Your task to perform on an android device: open app "eBay: The shopping marketplace" (install if not already installed) Image 0: 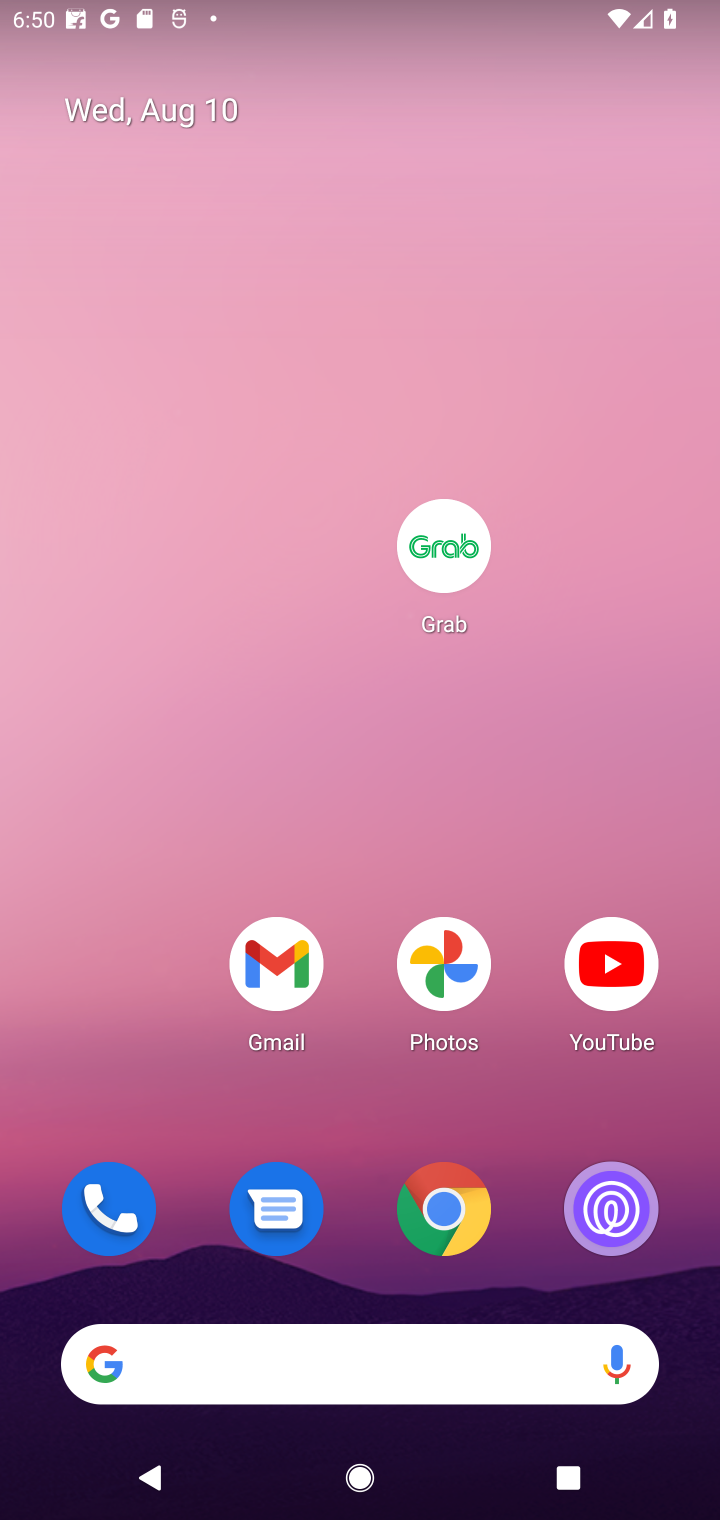
Step 0: drag from (508, 1278) to (477, 18)
Your task to perform on an android device: open app "eBay: The shopping marketplace" (install if not already installed) Image 1: 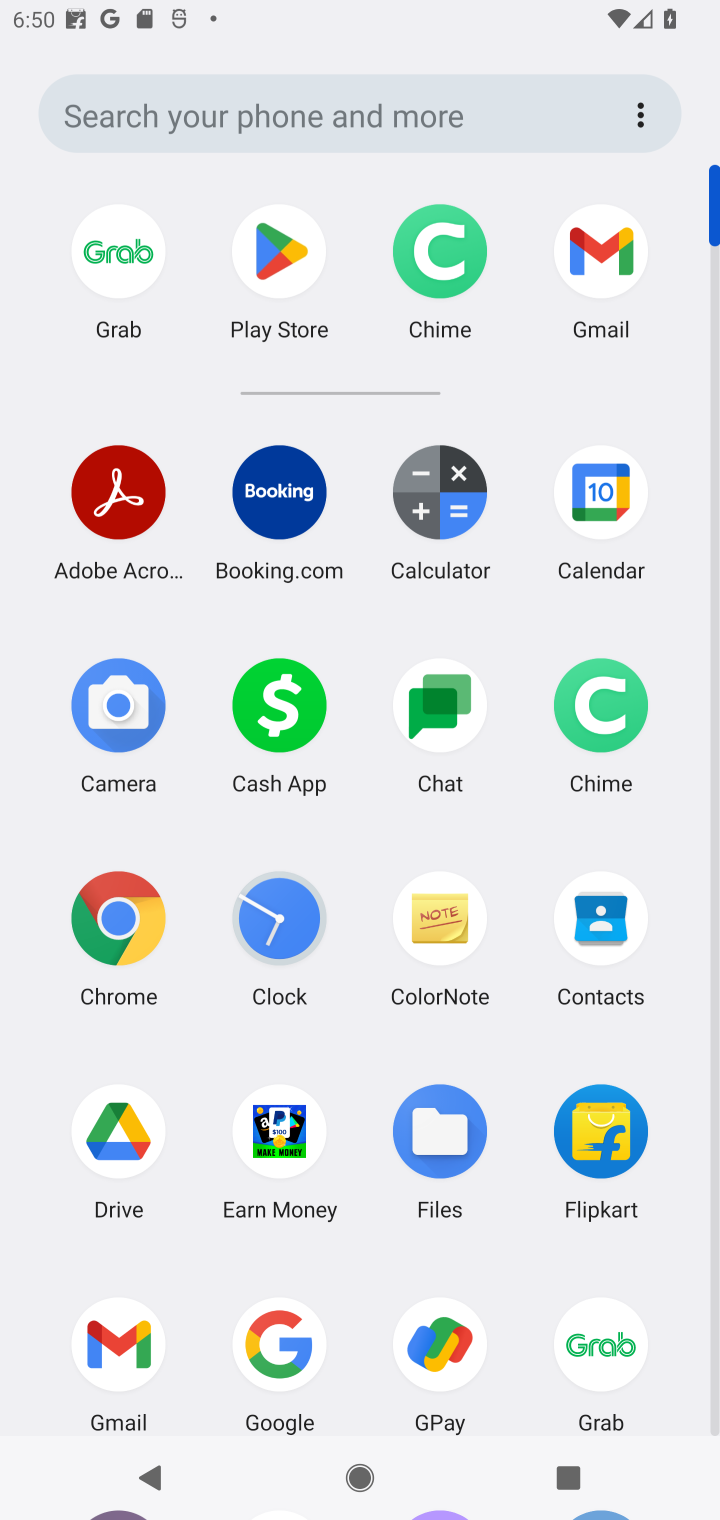
Step 1: click (302, 256)
Your task to perform on an android device: open app "eBay: The shopping marketplace" (install if not already installed) Image 2: 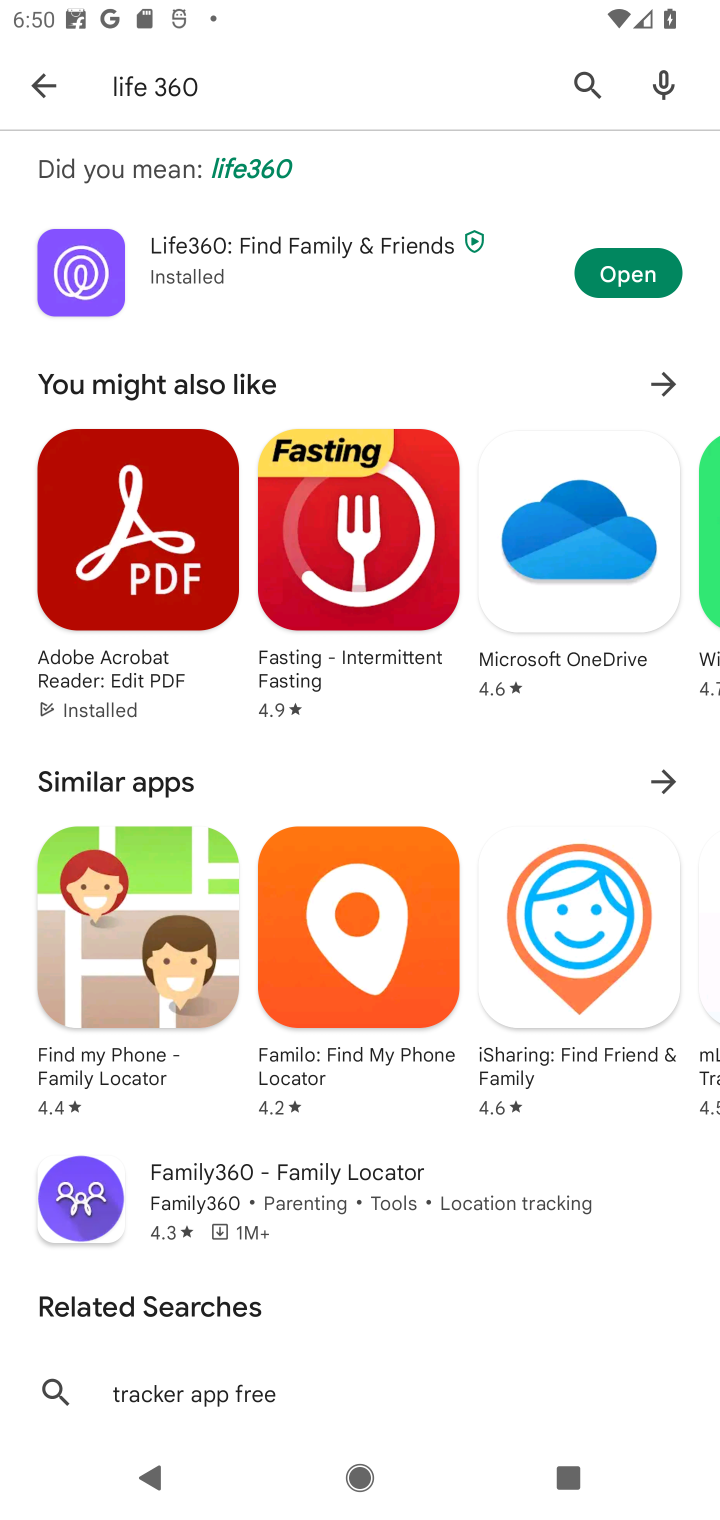
Step 2: click (586, 79)
Your task to perform on an android device: open app "eBay: The shopping marketplace" (install if not already installed) Image 3: 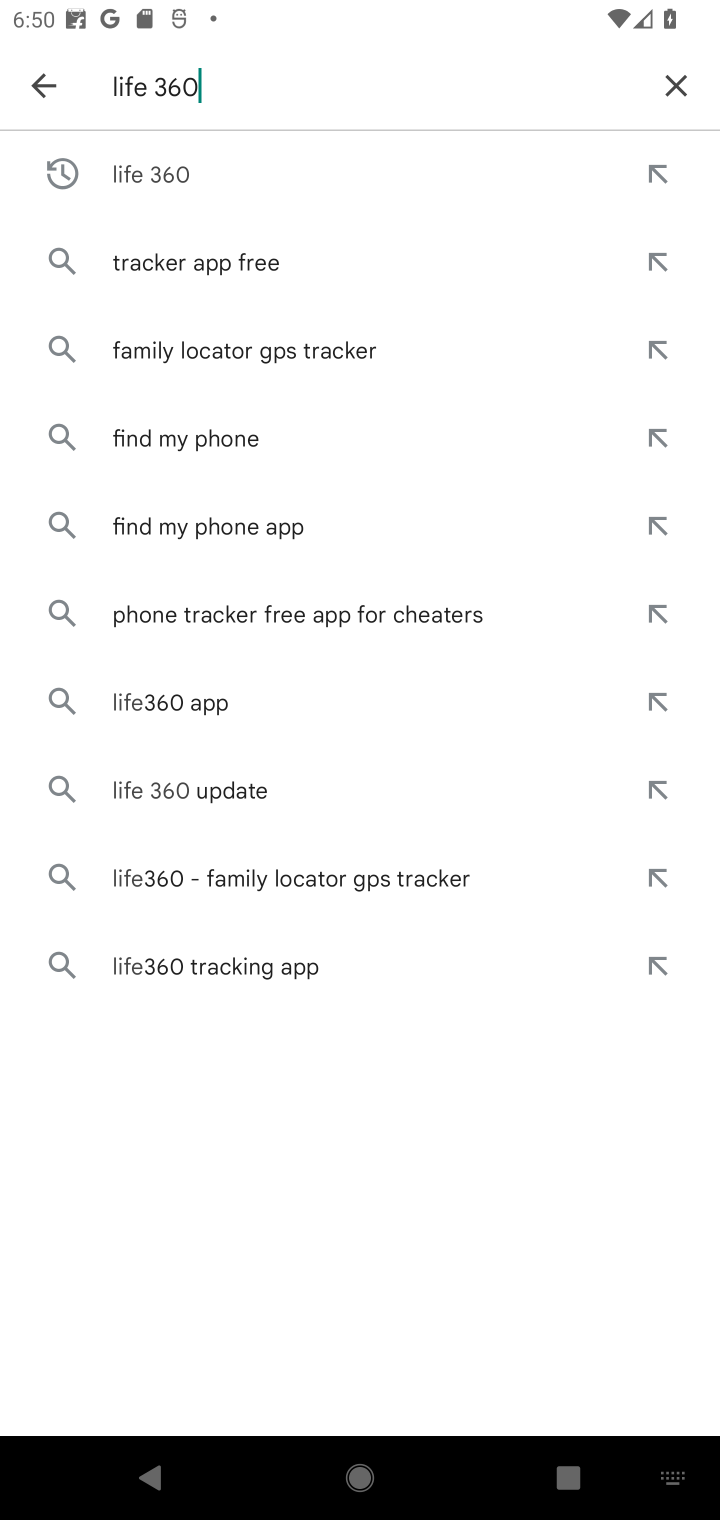
Step 3: click (692, 92)
Your task to perform on an android device: open app "eBay: The shopping marketplace" (install if not already installed) Image 4: 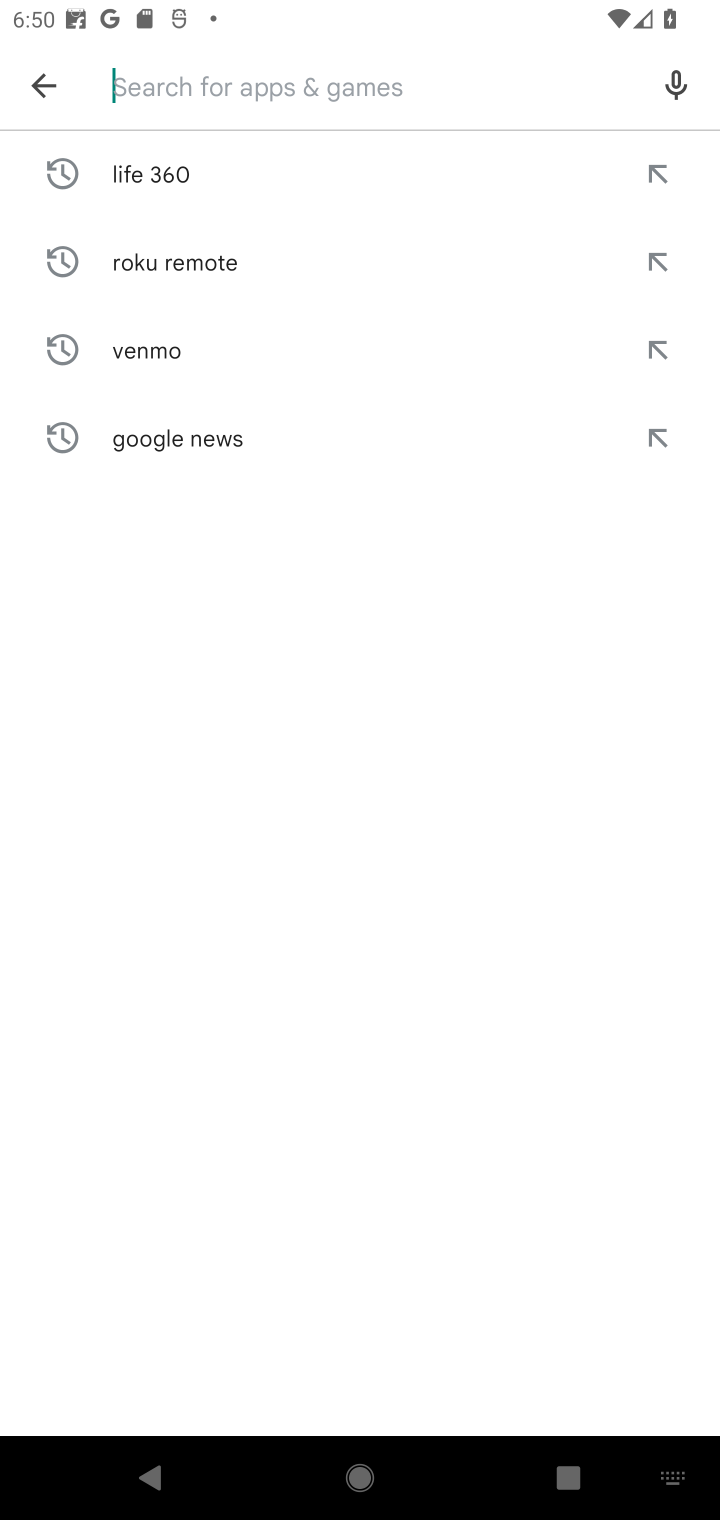
Step 4: type "ebay"
Your task to perform on an android device: open app "eBay: The shopping marketplace" (install if not already installed) Image 5: 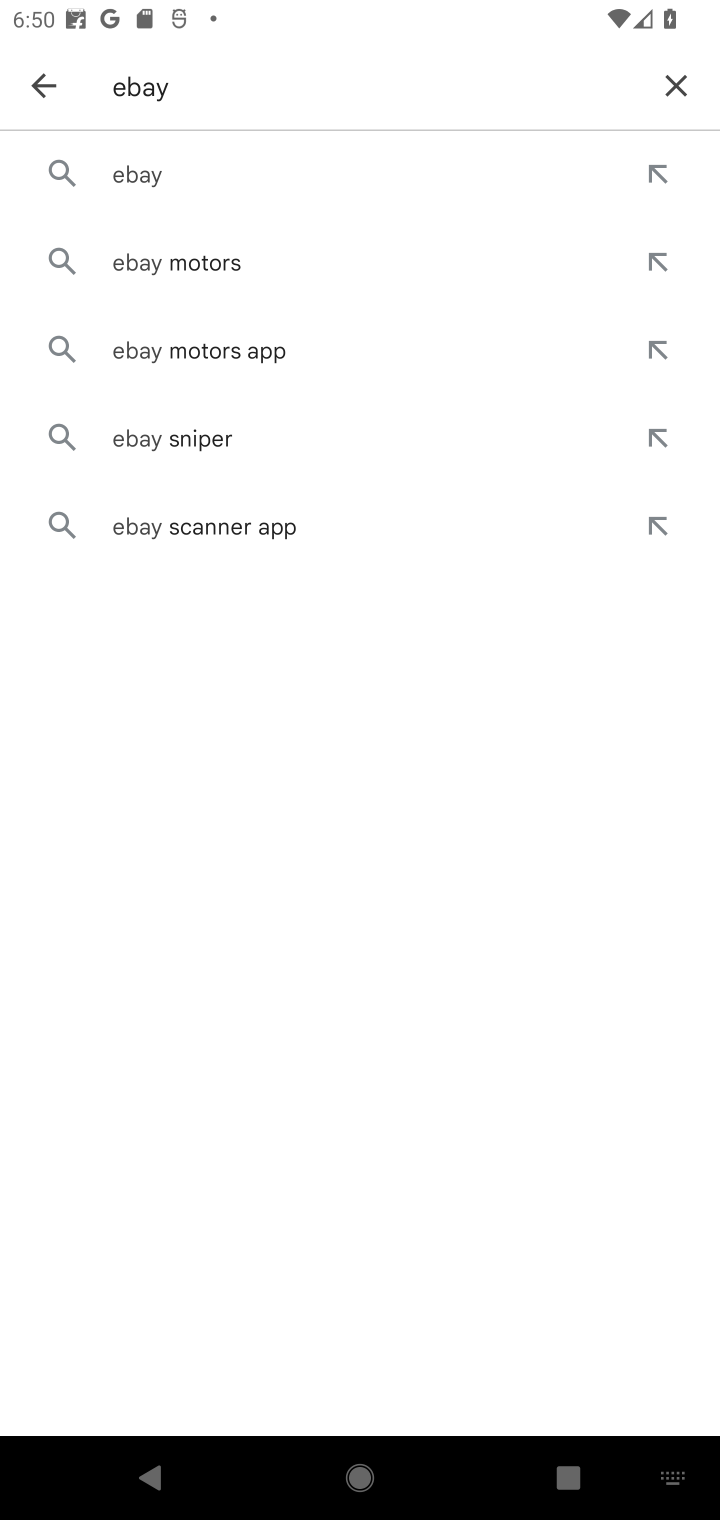
Step 5: click (229, 173)
Your task to perform on an android device: open app "eBay: The shopping marketplace" (install if not already installed) Image 6: 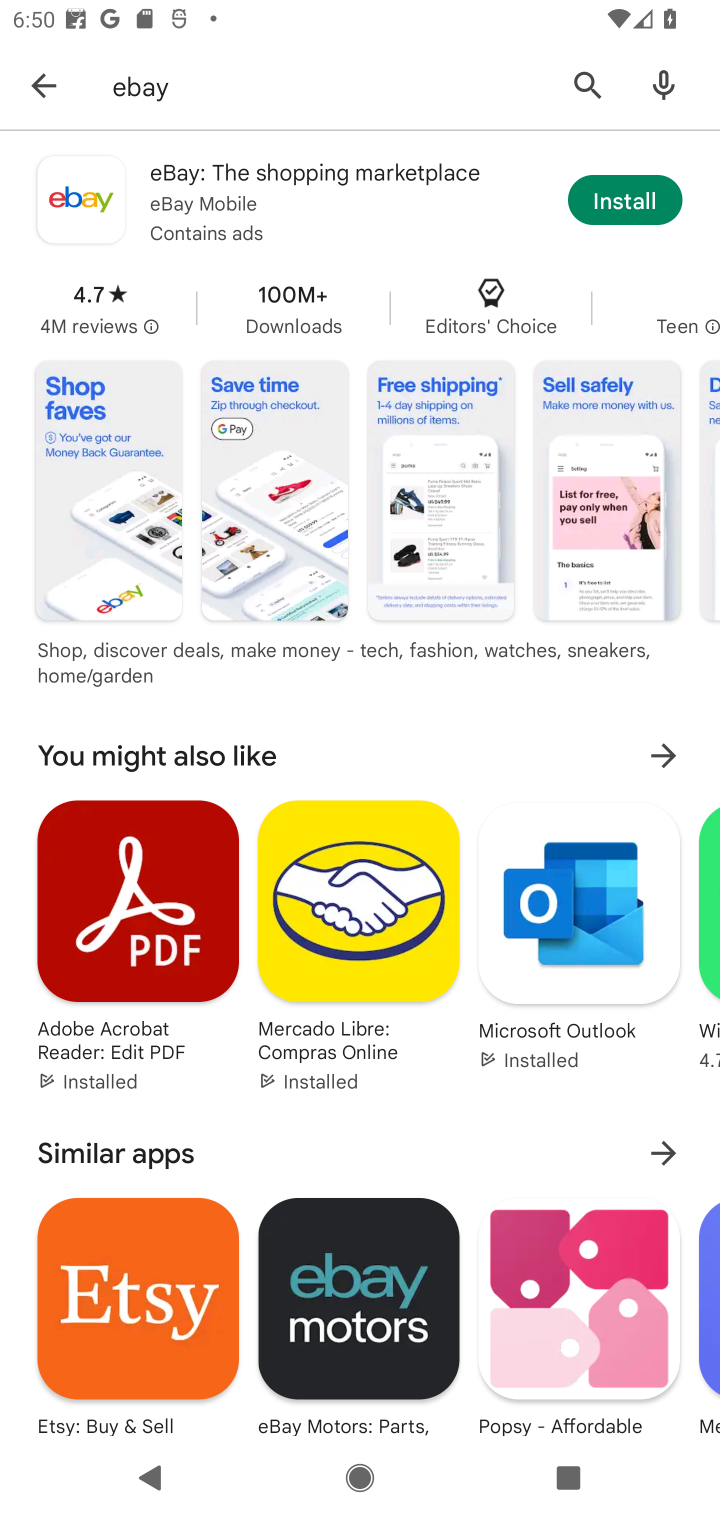
Step 6: click (659, 173)
Your task to perform on an android device: open app "eBay: The shopping marketplace" (install if not already installed) Image 7: 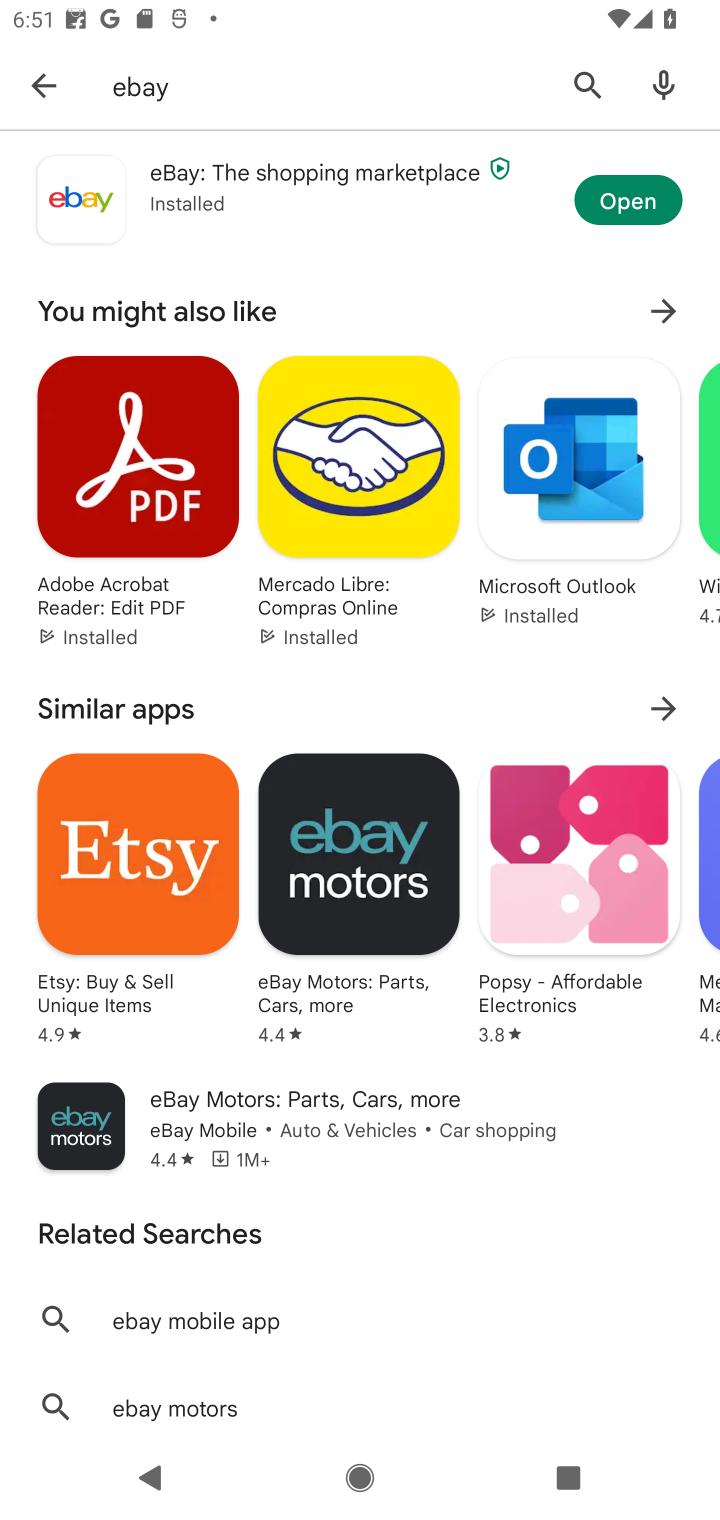
Step 7: click (627, 195)
Your task to perform on an android device: open app "eBay: The shopping marketplace" (install if not already installed) Image 8: 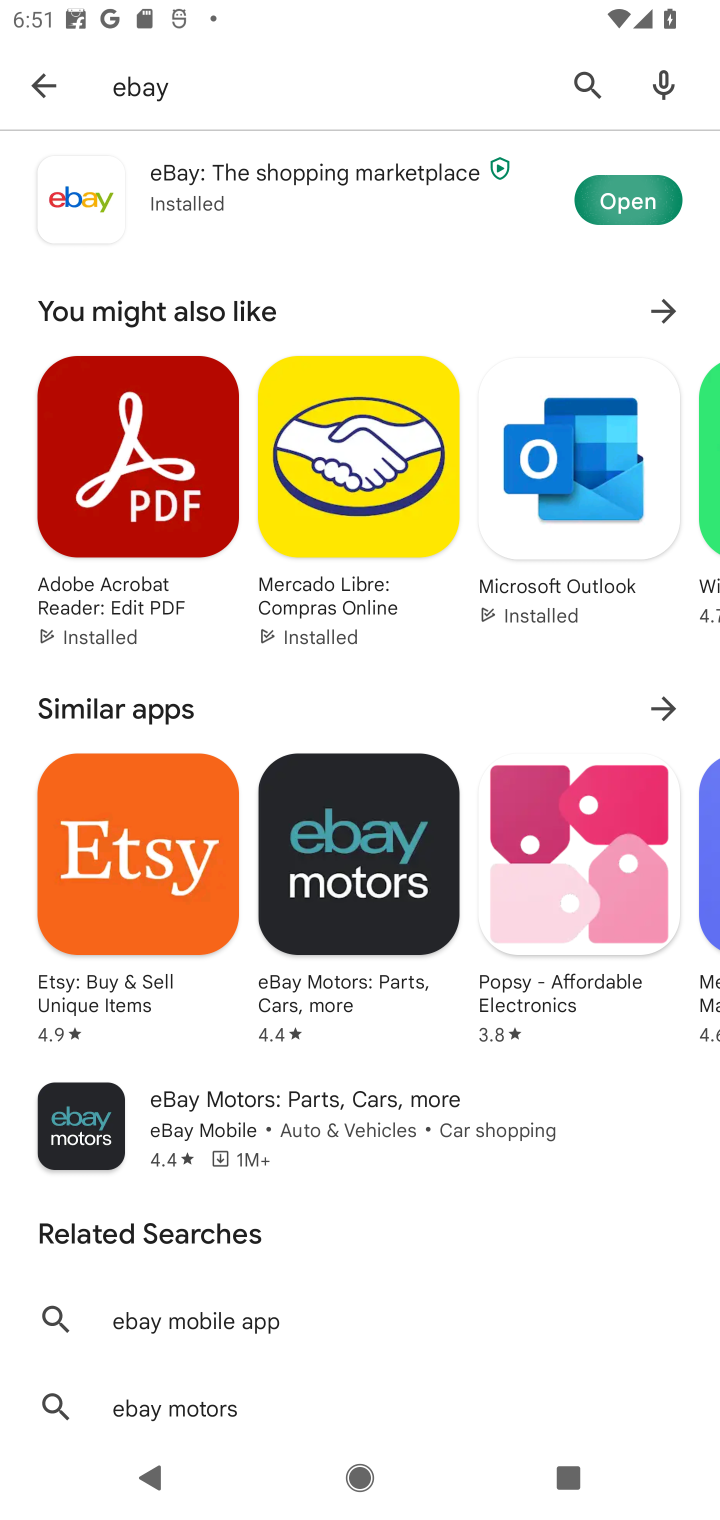
Step 8: task complete